Your task to perform on an android device: Open battery settings Image 0: 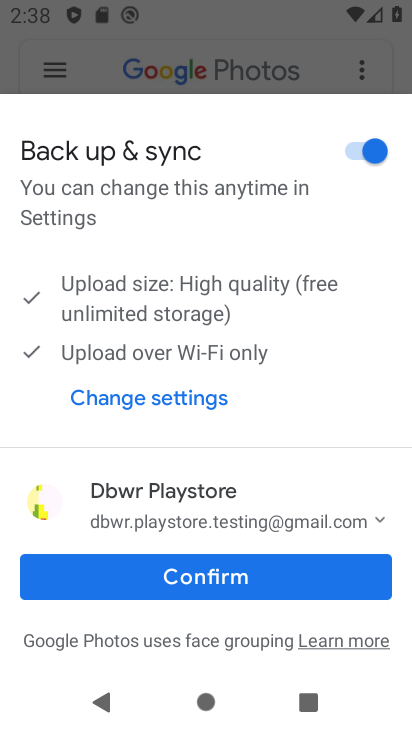
Step 0: press home button
Your task to perform on an android device: Open battery settings Image 1: 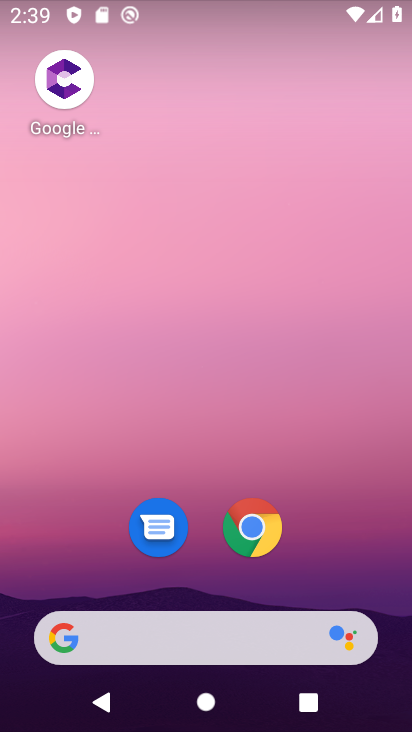
Step 1: drag from (202, 559) to (242, 143)
Your task to perform on an android device: Open battery settings Image 2: 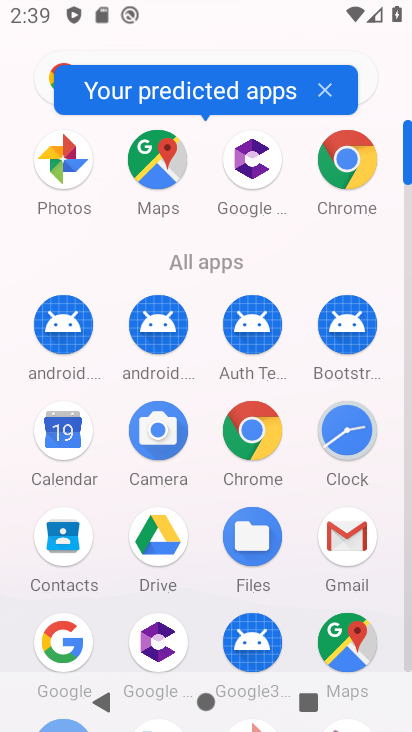
Step 2: drag from (194, 592) to (225, 355)
Your task to perform on an android device: Open battery settings Image 3: 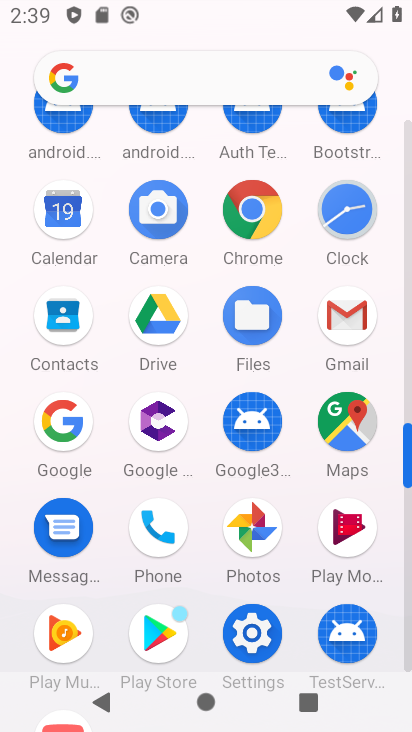
Step 3: click (256, 634)
Your task to perform on an android device: Open battery settings Image 4: 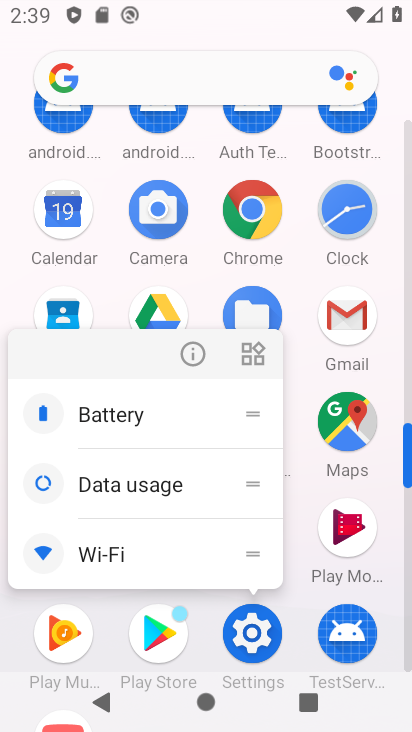
Step 4: click (149, 413)
Your task to perform on an android device: Open battery settings Image 5: 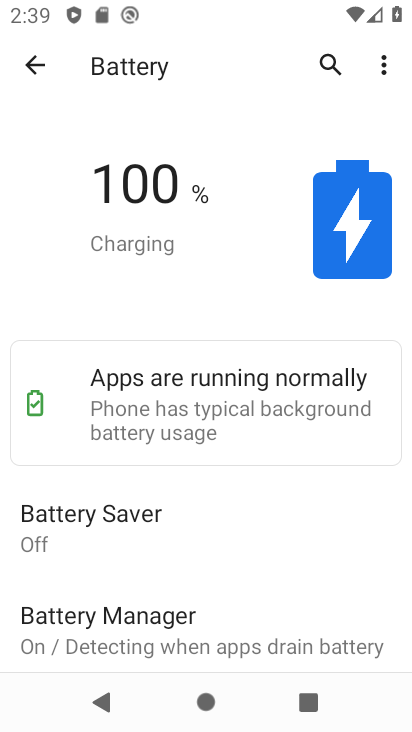
Step 5: task complete